Your task to perform on an android device: turn off airplane mode Image 0: 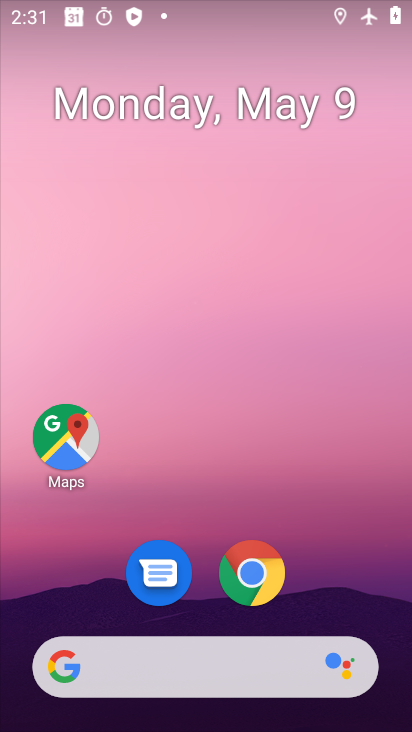
Step 0: drag from (349, 626) to (160, 6)
Your task to perform on an android device: turn off airplane mode Image 1: 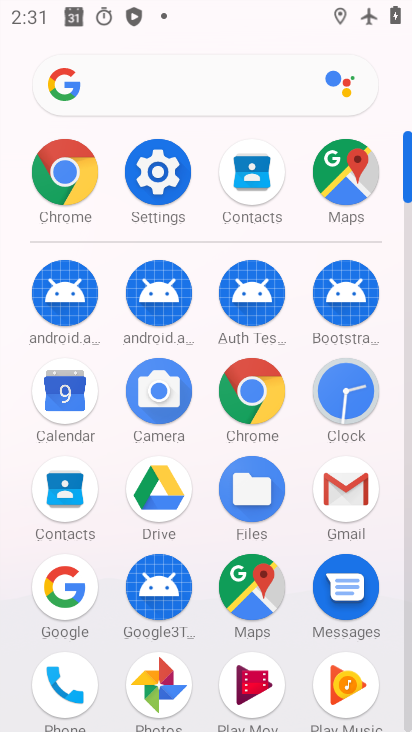
Step 1: click (163, 166)
Your task to perform on an android device: turn off airplane mode Image 2: 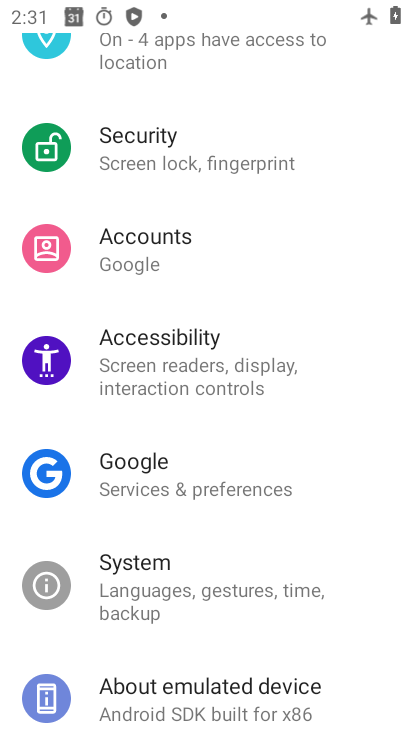
Step 2: drag from (162, 371) to (227, 690)
Your task to perform on an android device: turn off airplane mode Image 3: 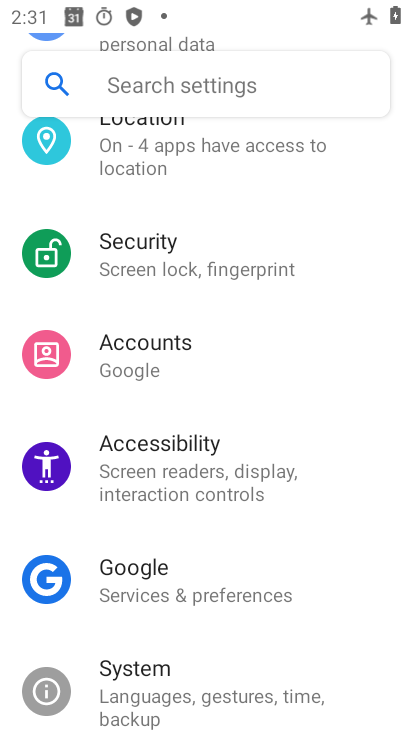
Step 3: drag from (262, 511) to (289, 575)
Your task to perform on an android device: turn off airplane mode Image 4: 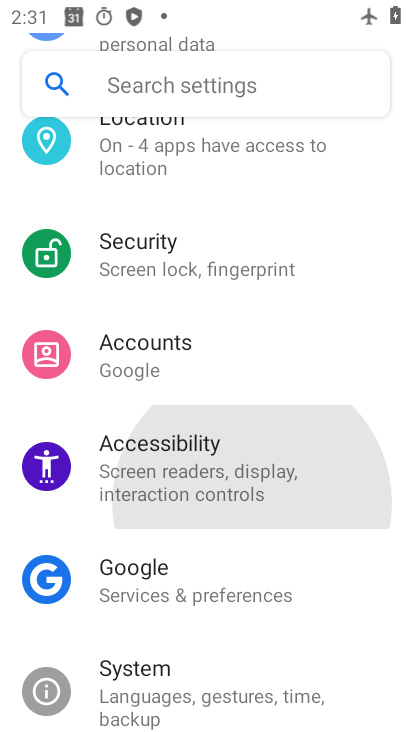
Step 4: drag from (234, 316) to (298, 554)
Your task to perform on an android device: turn off airplane mode Image 5: 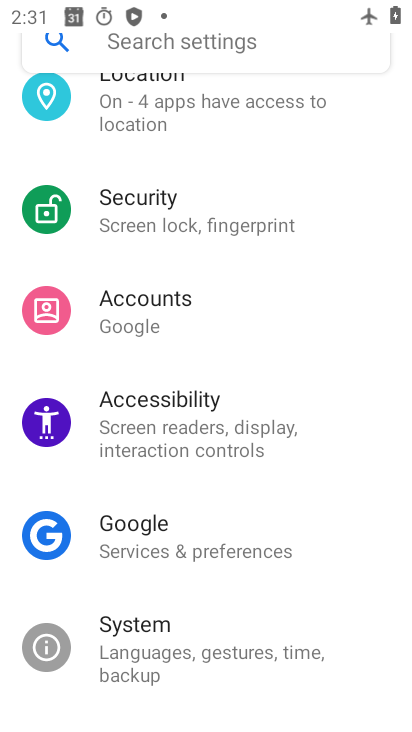
Step 5: drag from (167, 436) to (203, 603)
Your task to perform on an android device: turn off airplane mode Image 6: 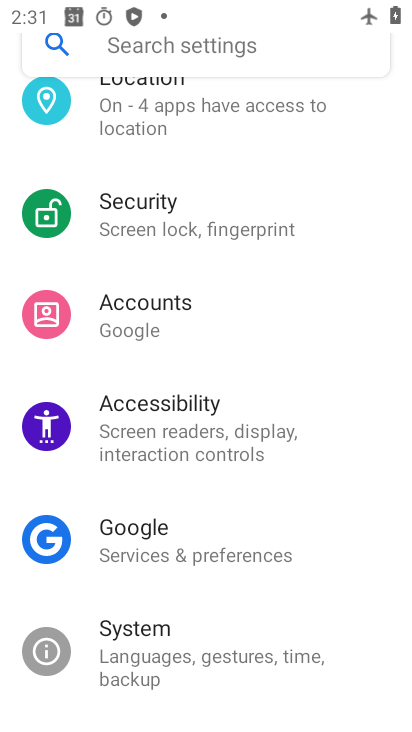
Step 6: drag from (158, 487) to (218, 524)
Your task to perform on an android device: turn off airplane mode Image 7: 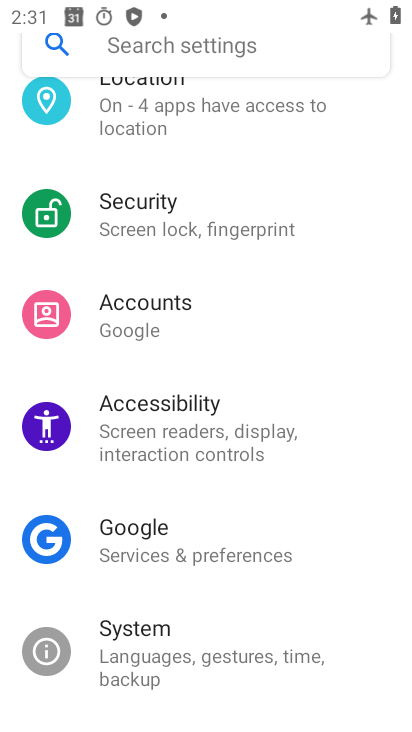
Step 7: drag from (218, 208) to (258, 557)
Your task to perform on an android device: turn off airplane mode Image 8: 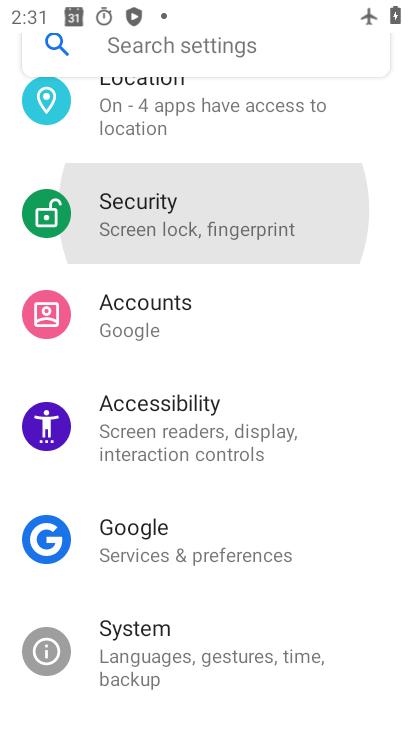
Step 8: drag from (209, 219) to (249, 489)
Your task to perform on an android device: turn off airplane mode Image 9: 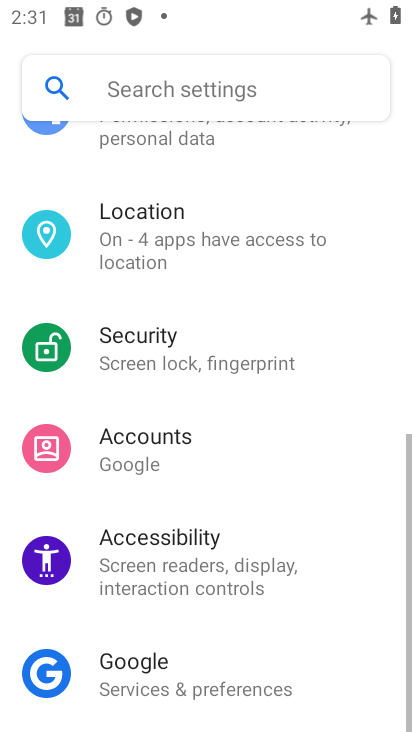
Step 9: drag from (203, 172) to (197, 511)
Your task to perform on an android device: turn off airplane mode Image 10: 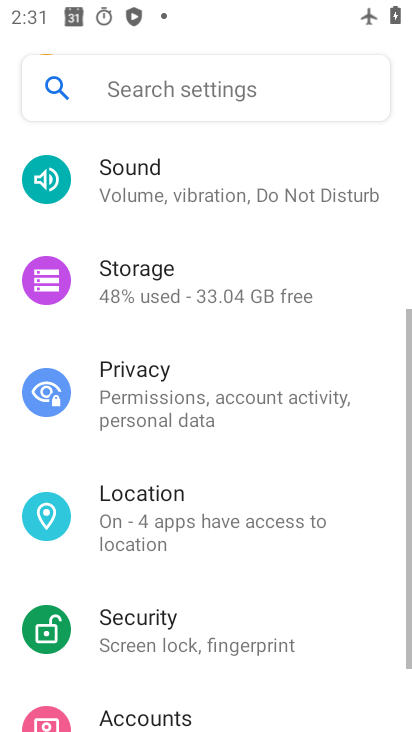
Step 10: drag from (262, 578) to (175, 496)
Your task to perform on an android device: turn off airplane mode Image 11: 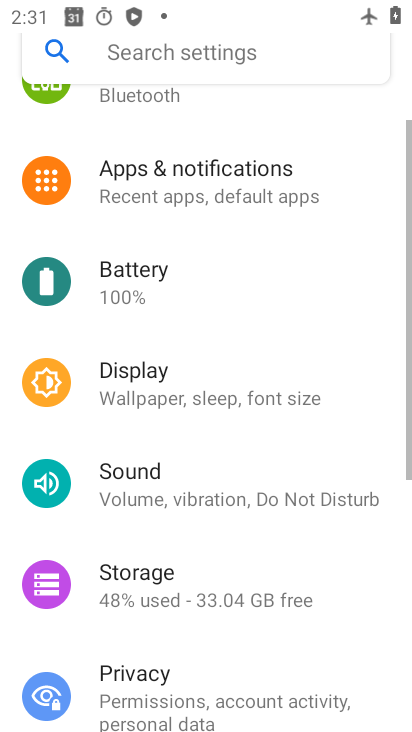
Step 11: drag from (154, 252) to (225, 515)
Your task to perform on an android device: turn off airplane mode Image 12: 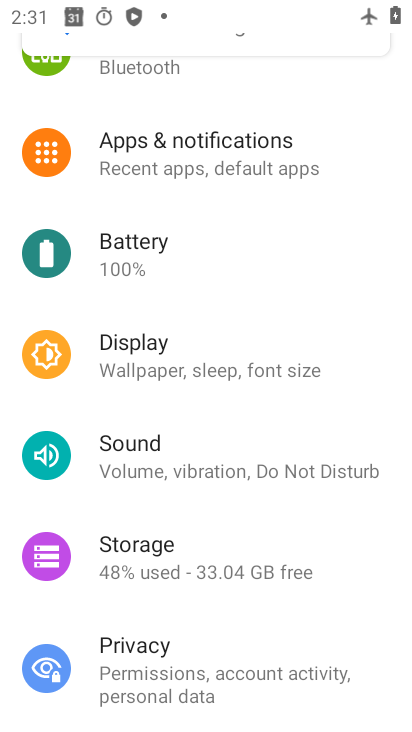
Step 12: drag from (150, 214) to (199, 441)
Your task to perform on an android device: turn off airplane mode Image 13: 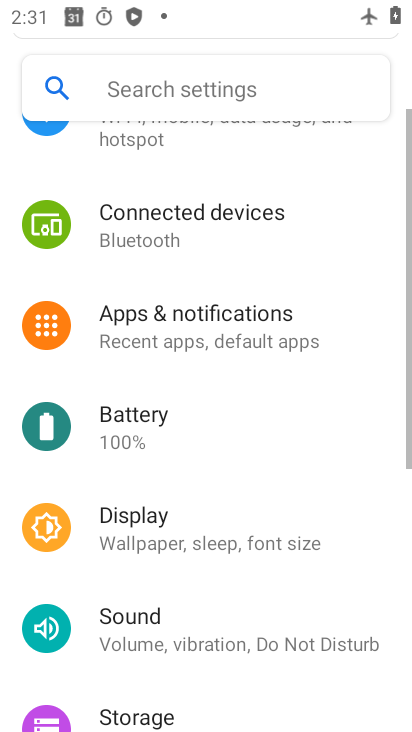
Step 13: drag from (144, 116) to (187, 390)
Your task to perform on an android device: turn off airplane mode Image 14: 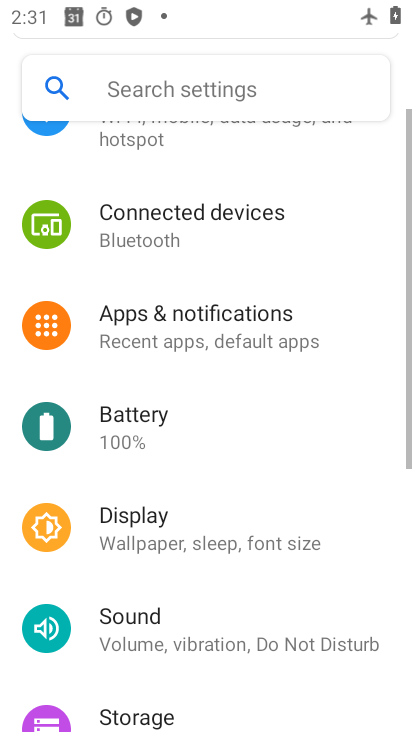
Step 14: drag from (176, 165) to (151, 517)
Your task to perform on an android device: turn off airplane mode Image 15: 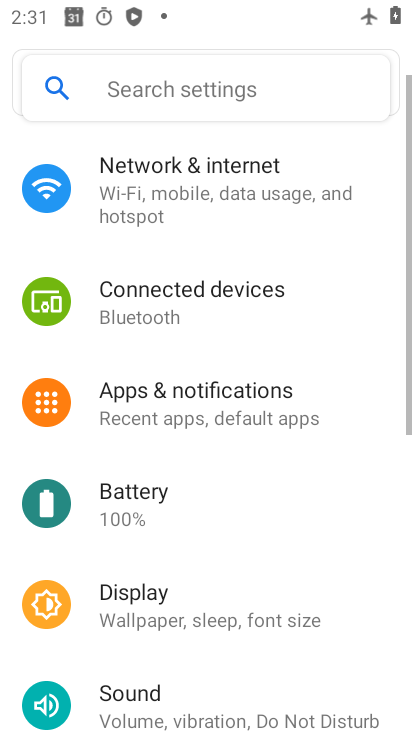
Step 15: drag from (127, 262) to (163, 533)
Your task to perform on an android device: turn off airplane mode Image 16: 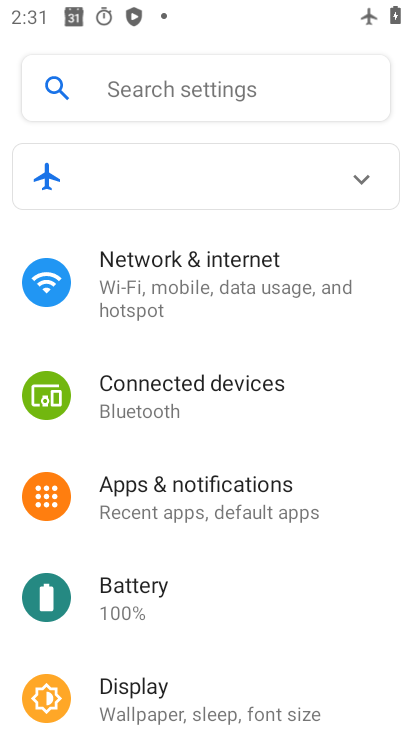
Step 16: click (187, 287)
Your task to perform on an android device: turn off airplane mode Image 17: 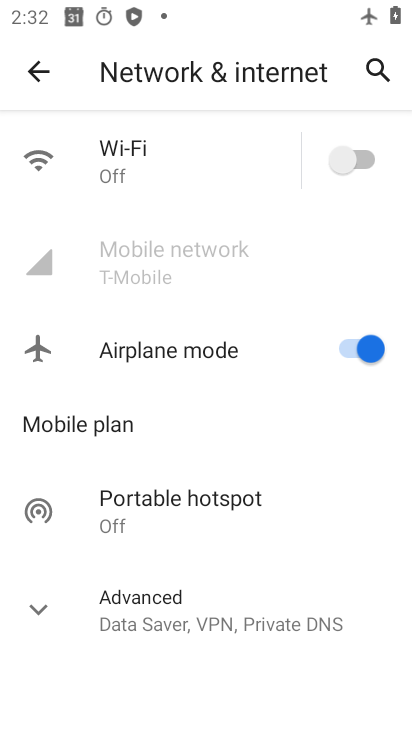
Step 17: click (42, 86)
Your task to perform on an android device: turn off airplane mode Image 18: 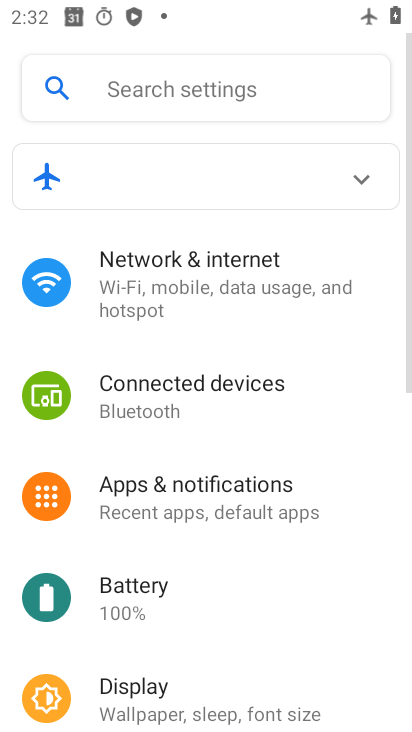
Step 18: click (174, 498)
Your task to perform on an android device: turn off airplane mode Image 19: 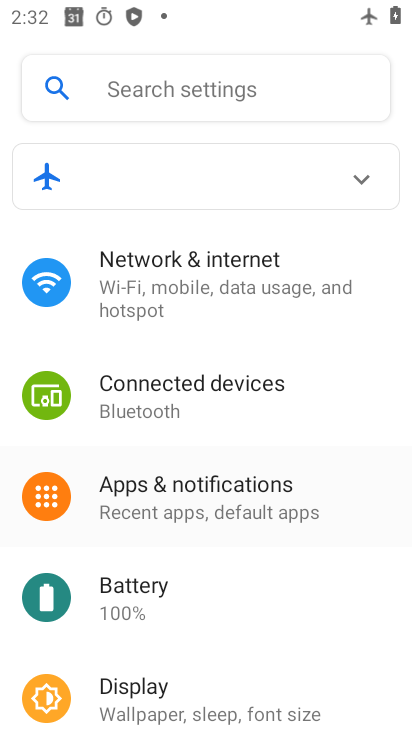
Step 19: click (174, 498)
Your task to perform on an android device: turn off airplane mode Image 20: 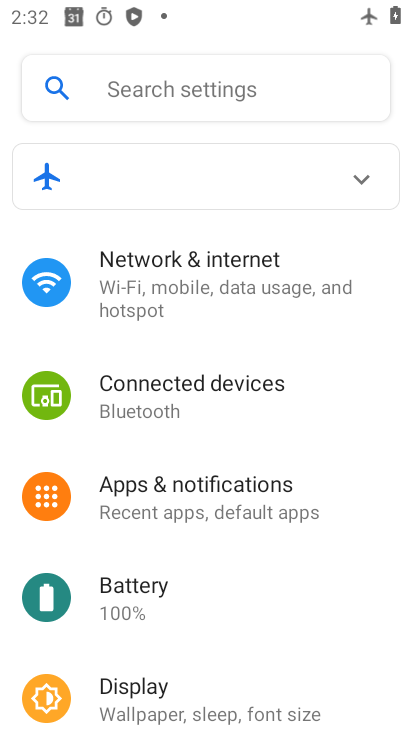
Step 20: click (174, 498)
Your task to perform on an android device: turn off airplane mode Image 21: 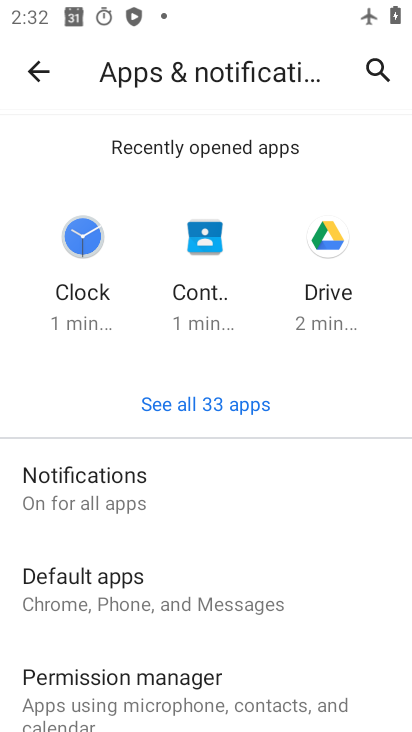
Step 21: click (27, 60)
Your task to perform on an android device: turn off airplane mode Image 22: 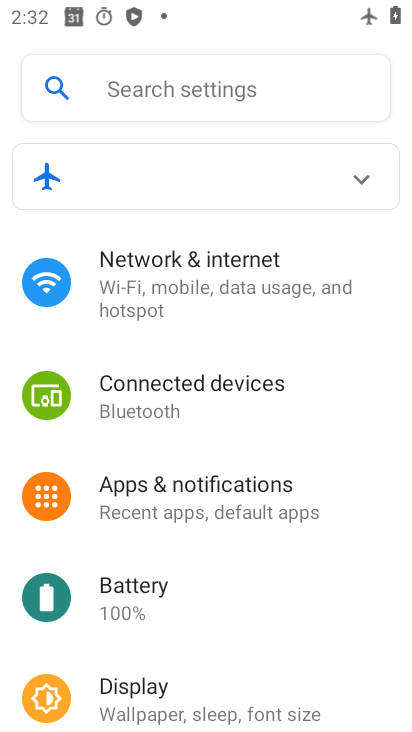
Step 22: click (233, 261)
Your task to perform on an android device: turn off airplane mode Image 23: 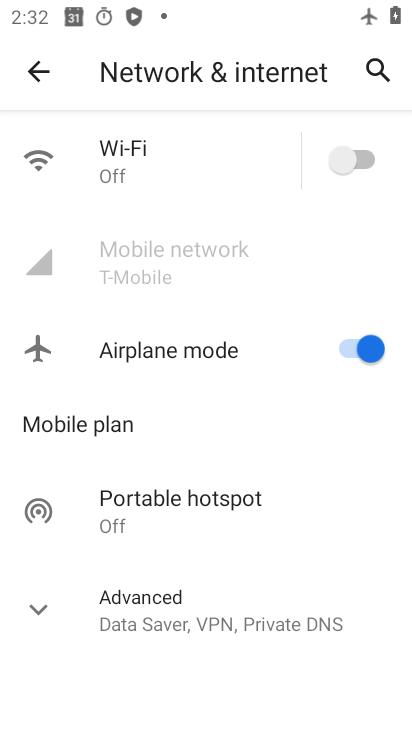
Step 23: click (361, 352)
Your task to perform on an android device: turn off airplane mode Image 24: 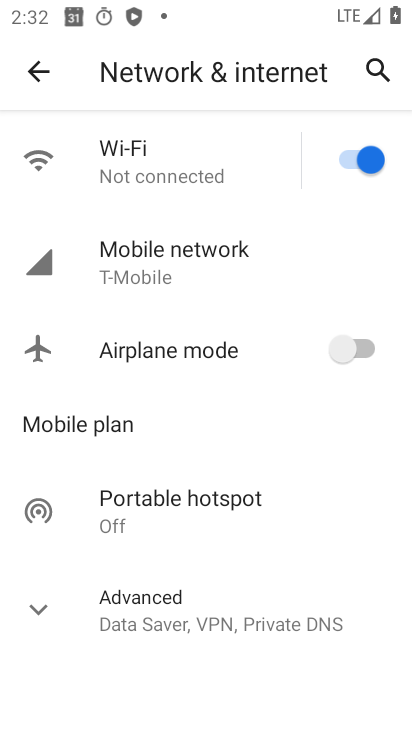
Step 24: task complete